Your task to perform on an android device: delete a single message in the gmail app Image 0: 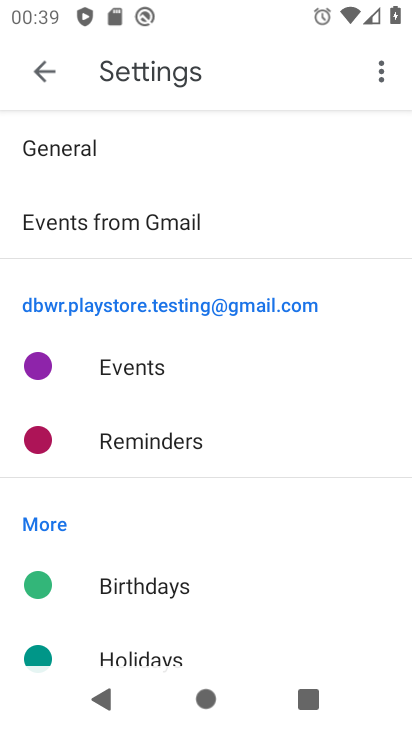
Step 0: press home button
Your task to perform on an android device: delete a single message in the gmail app Image 1: 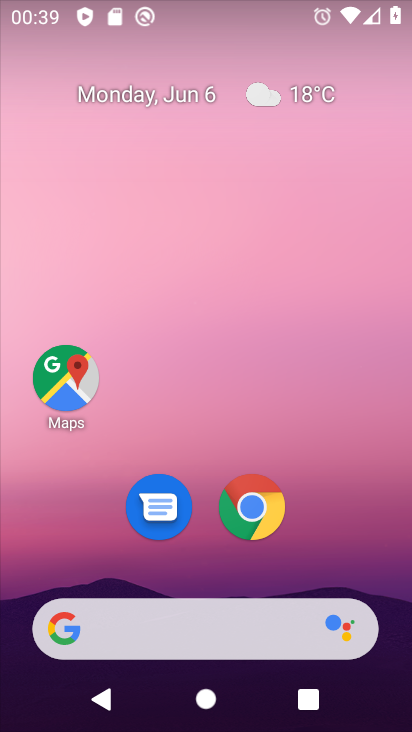
Step 1: drag from (196, 578) to (201, 113)
Your task to perform on an android device: delete a single message in the gmail app Image 2: 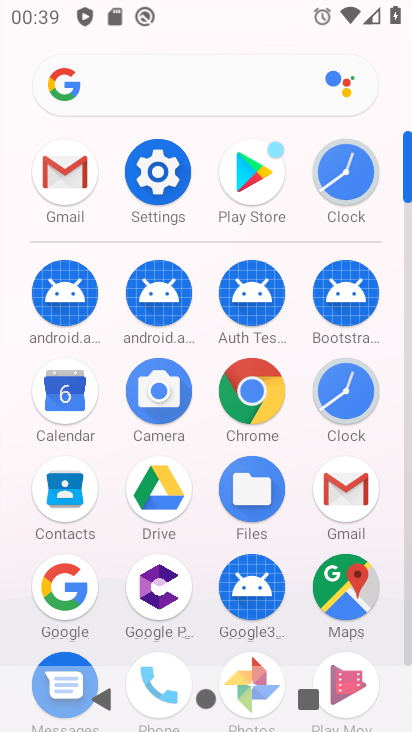
Step 2: drag from (215, 552) to (220, 252)
Your task to perform on an android device: delete a single message in the gmail app Image 3: 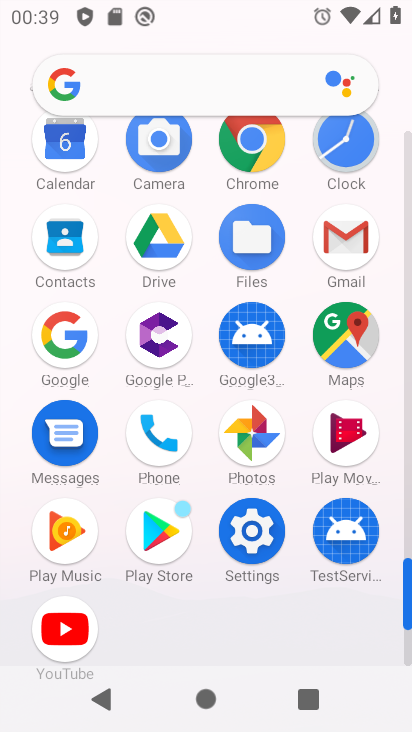
Step 3: click (362, 247)
Your task to perform on an android device: delete a single message in the gmail app Image 4: 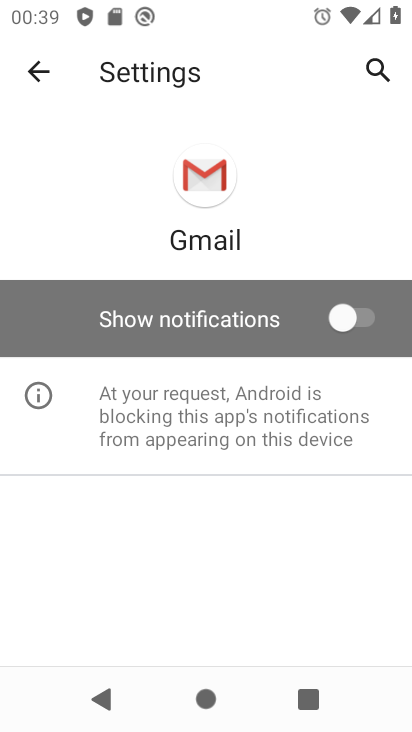
Step 4: click (46, 64)
Your task to perform on an android device: delete a single message in the gmail app Image 5: 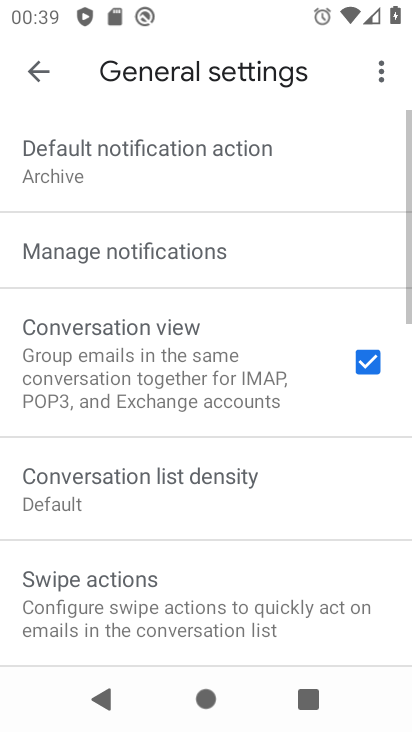
Step 5: click (46, 64)
Your task to perform on an android device: delete a single message in the gmail app Image 6: 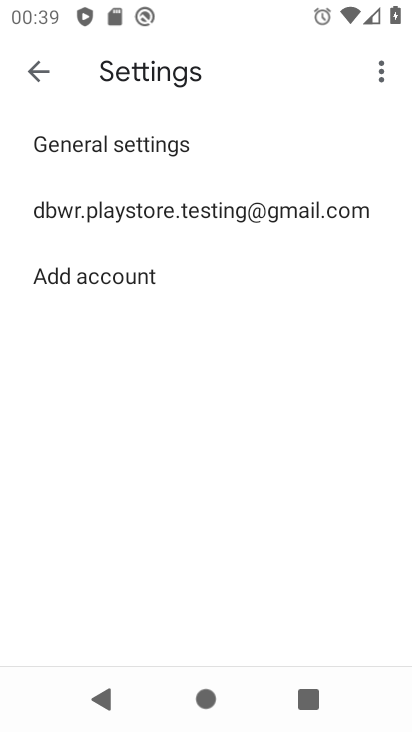
Step 6: click (44, 67)
Your task to perform on an android device: delete a single message in the gmail app Image 7: 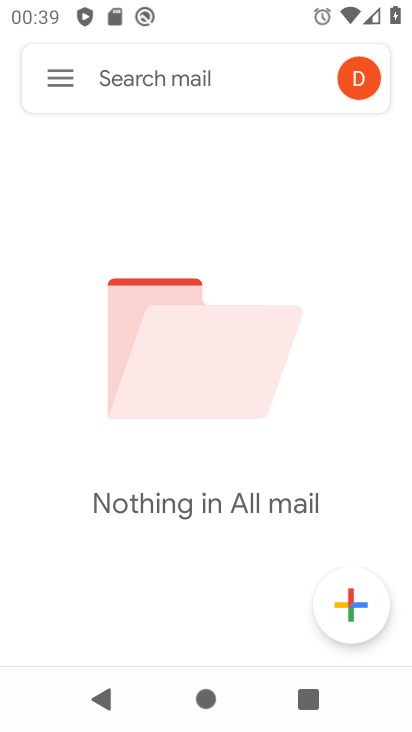
Step 7: task complete